Your task to perform on an android device: toggle notification dots Image 0: 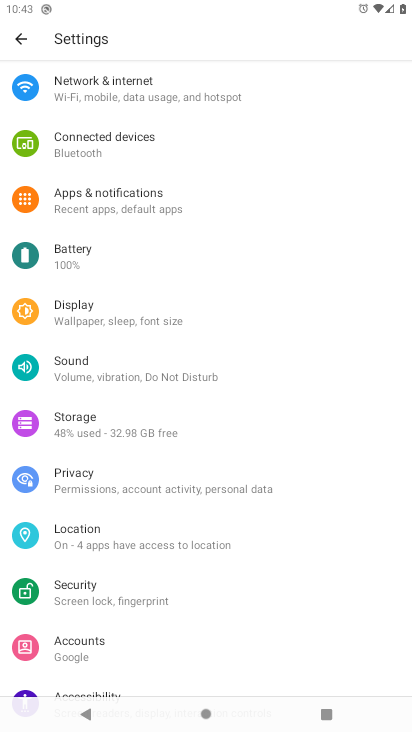
Step 0: click (122, 194)
Your task to perform on an android device: toggle notification dots Image 1: 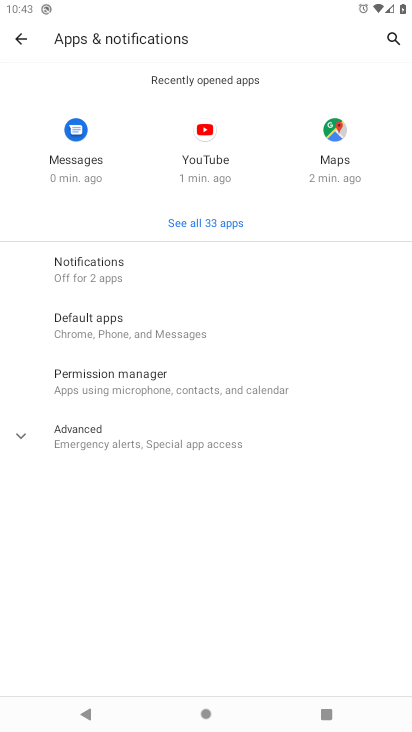
Step 1: click (89, 436)
Your task to perform on an android device: toggle notification dots Image 2: 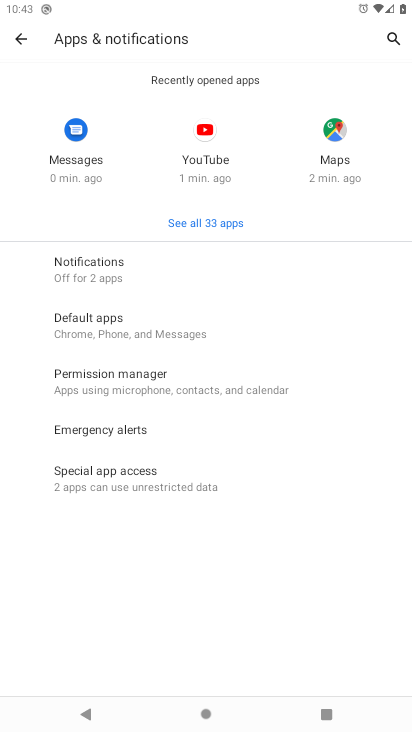
Step 2: click (101, 266)
Your task to perform on an android device: toggle notification dots Image 3: 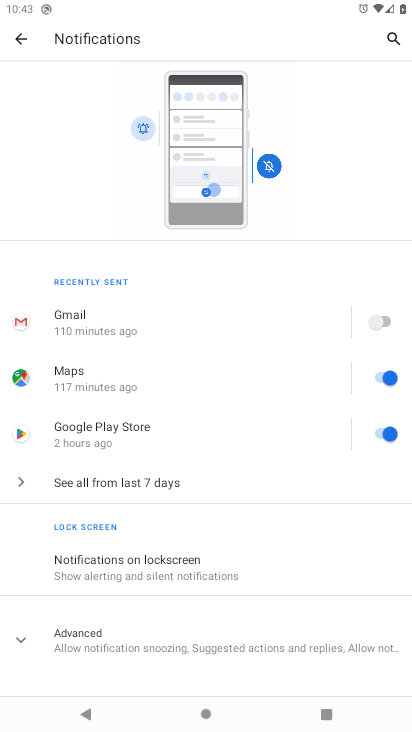
Step 3: drag from (221, 614) to (197, 117)
Your task to perform on an android device: toggle notification dots Image 4: 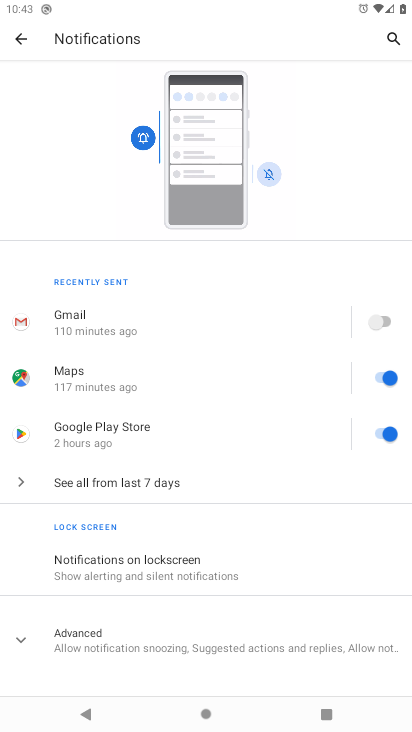
Step 4: click (107, 635)
Your task to perform on an android device: toggle notification dots Image 5: 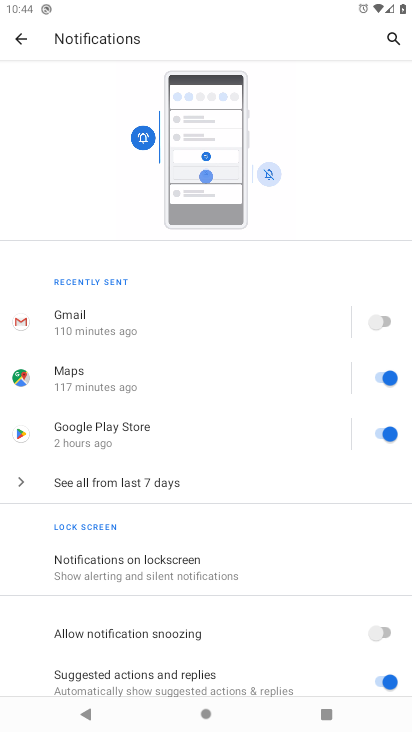
Step 5: drag from (234, 598) to (250, 440)
Your task to perform on an android device: toggle notification dots Image 6: 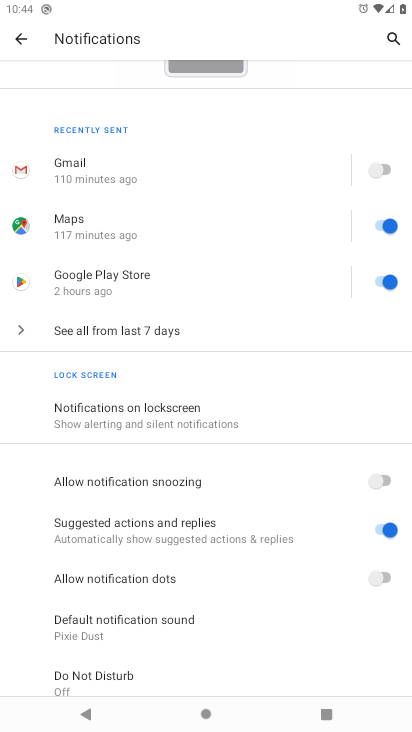
Step 6: click (386, 575)
Your task to perform on an android device: toggle notification dots Image 7: 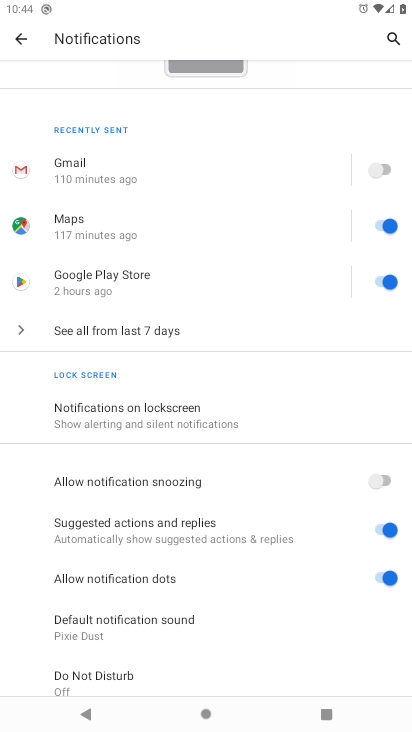
Step 7: task complete